Your task to perform on an android device: Open CNN.com Image 0: 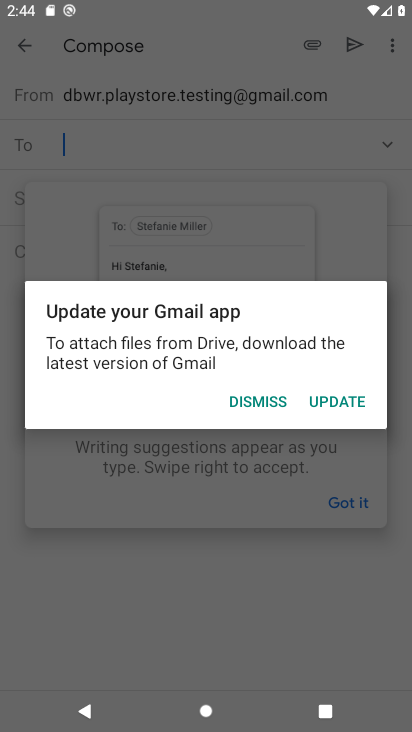
Step 0: press home button
Your task to perform on an android device: Open CNN.com Image 1: 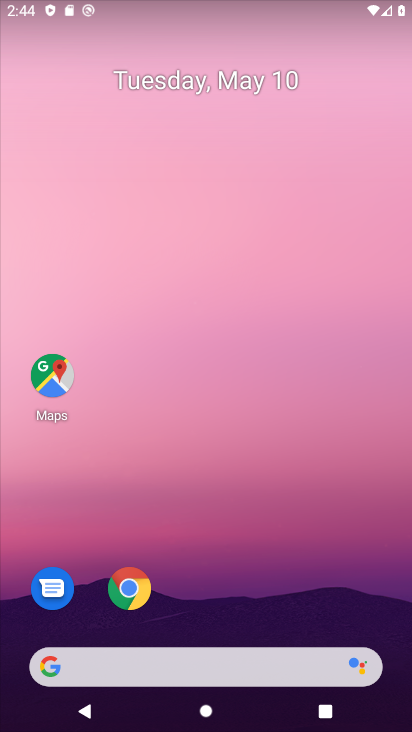
Step 1: click (132, 590)
Your task to perform on an android device: Open CNN.com Image 2: 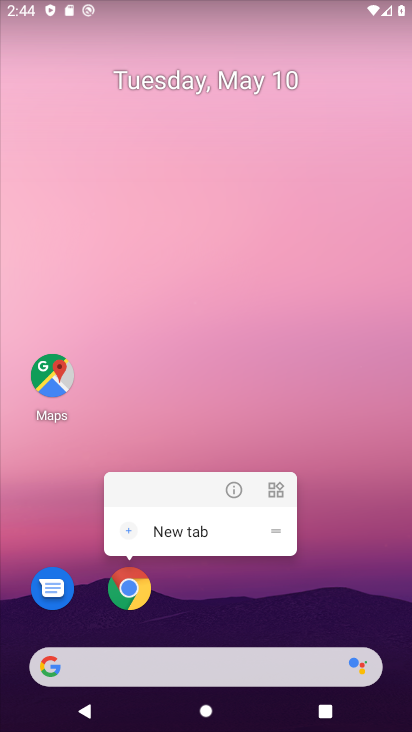
Step 2: click (132, 590)
Your task to perform on an android device: Open CNN.com Image 3: 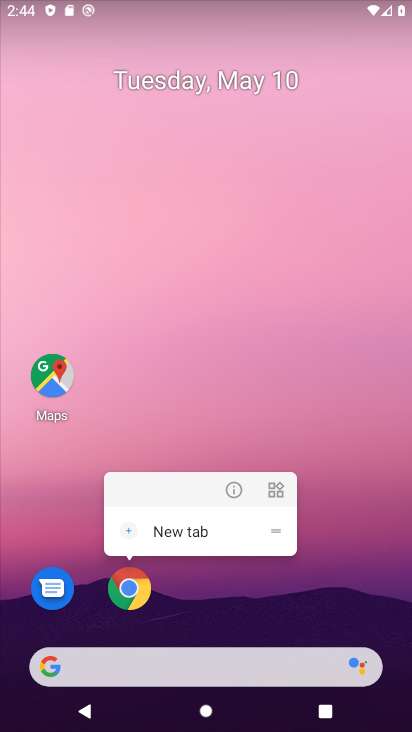
Step 3: click (132, 590)
Your task to perform on an android device: Open CNN.com Image 4: 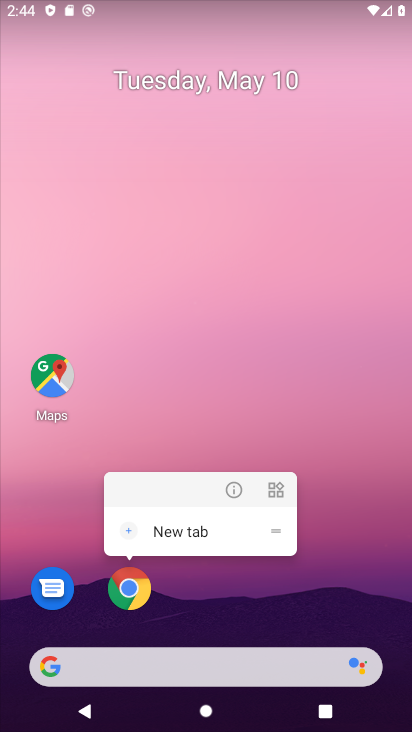
Step 4: click (132, 597)
Your task to perform on an android device: Open CNN.com Image 5: 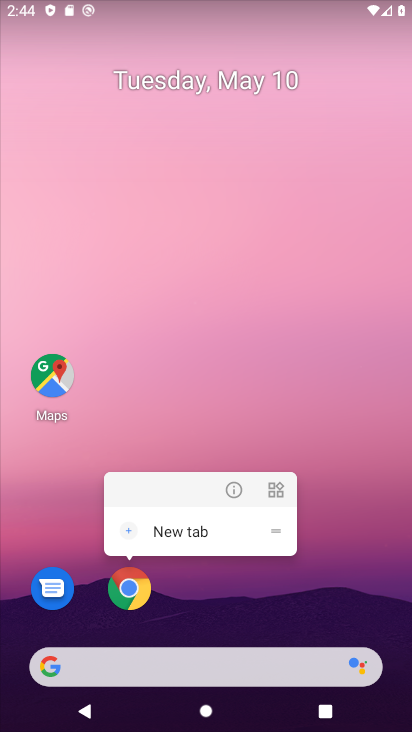
Step 5: click (143, 595)
Your task to perform on an android device: Open CNN.com Image 6: 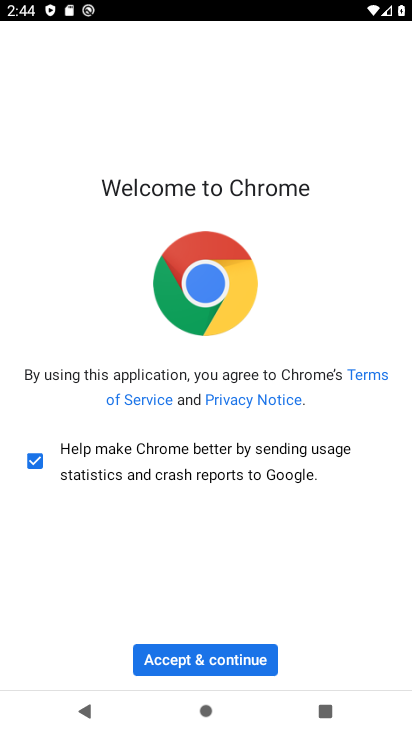
Step 6: click (236, 648)
Your task to perform on an android device: Open CNN.com Image 7: 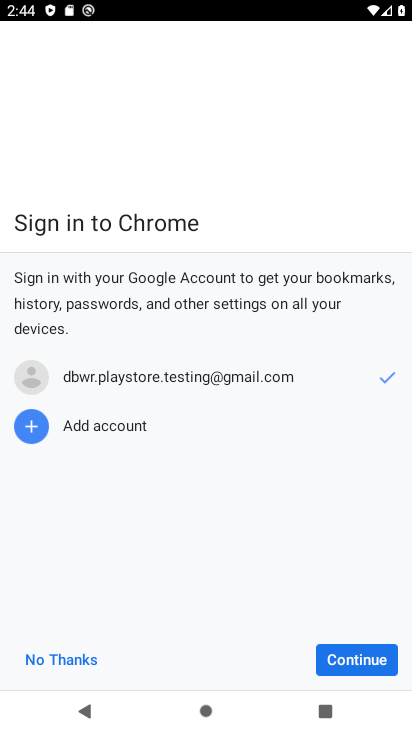
Step 7: click (370, 659)
Your task to perform on an android device: Open CNN.com Image 8: 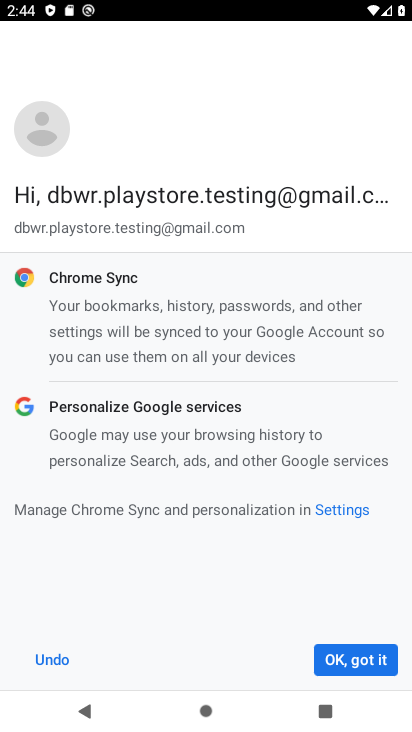
Step 8: click (354, 655)
Your task to perform on an android device: Open CNN.com Image 9: 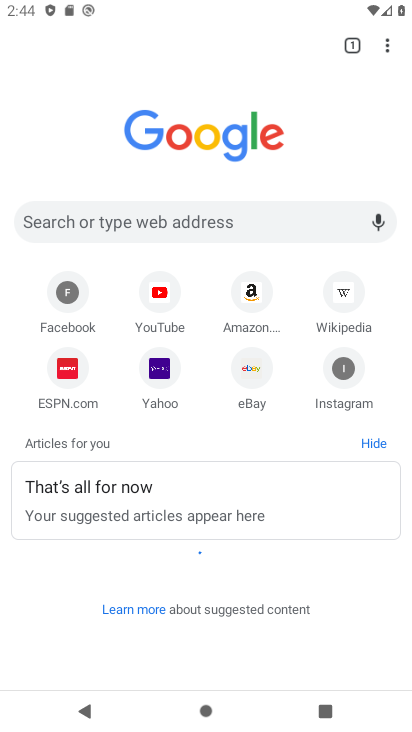
Step 9: click (215, 228)
Your task to perform on an android device: Open CNN.com Image 10: 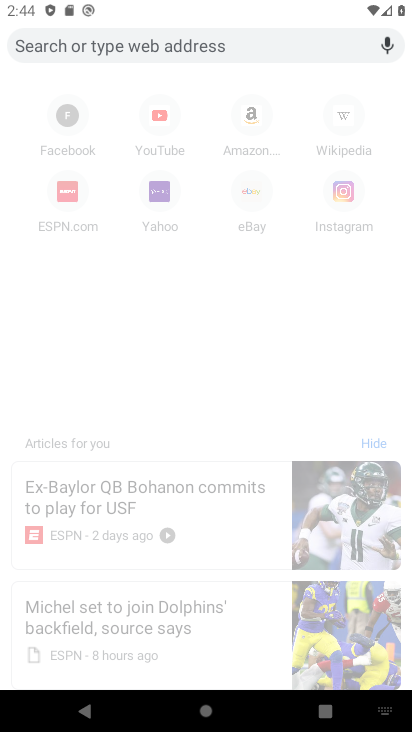
Step 10: type "CNN.com"
Your task to perform on an android device: Open CNN.com Image 11: 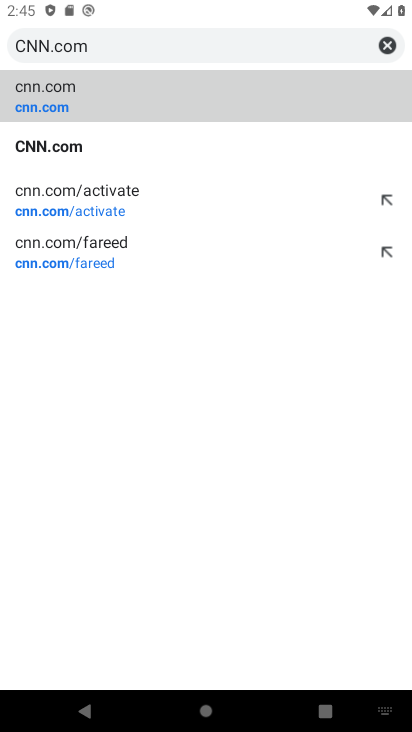
Step 11: click (92, 152)
Your task to perform on an android device: Open CNN.com Image 12: 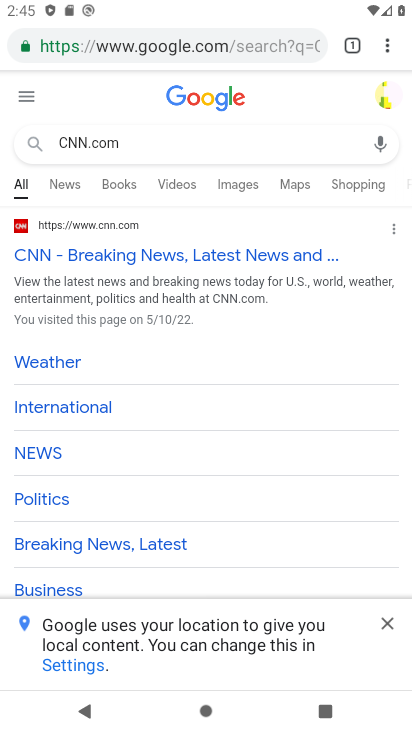
Step 12: click (391, 629)
Your task to perform on an android device: Open CNN.com Image 13: 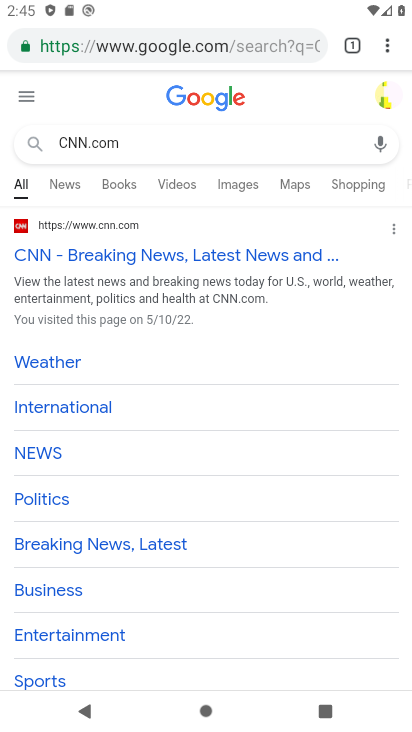
Step 13: click (225, 249)
Your task to perform on an android device: Open CNN.com Image 14: 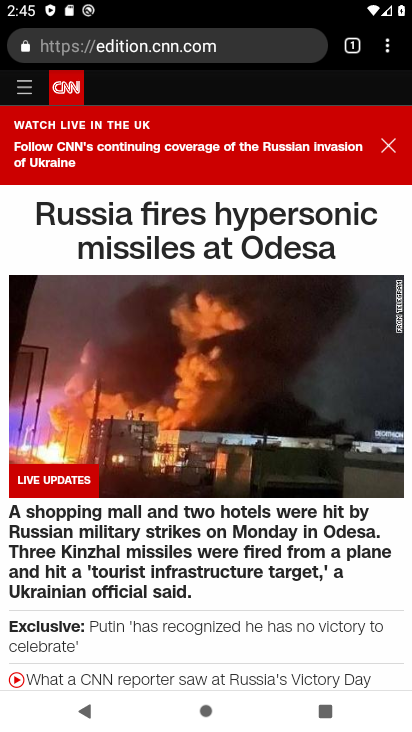
Step 14: task complete